Your task to perform on an android device: When is my next appointment? Image 0: 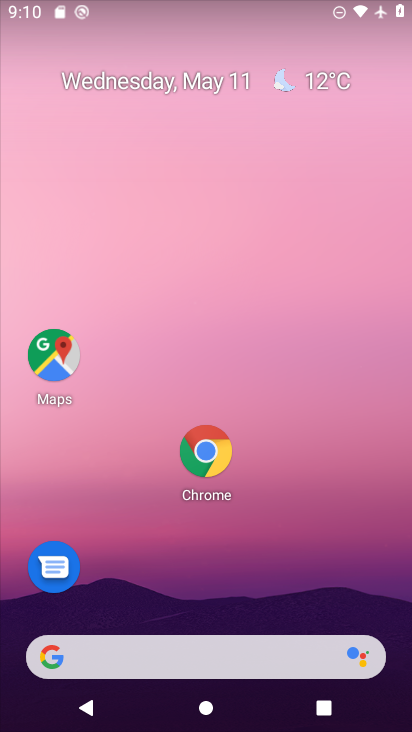
Step 0: press home button
Your task to perform on an android device: When is my next appointment? Image 1: 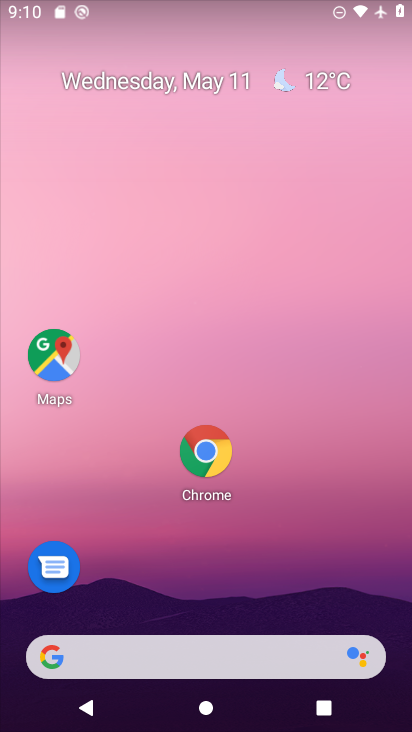
Step 1: drag from (147, 663) to (299, 170)
Your task to perform on an android device: When is my next appointment? Image 2: 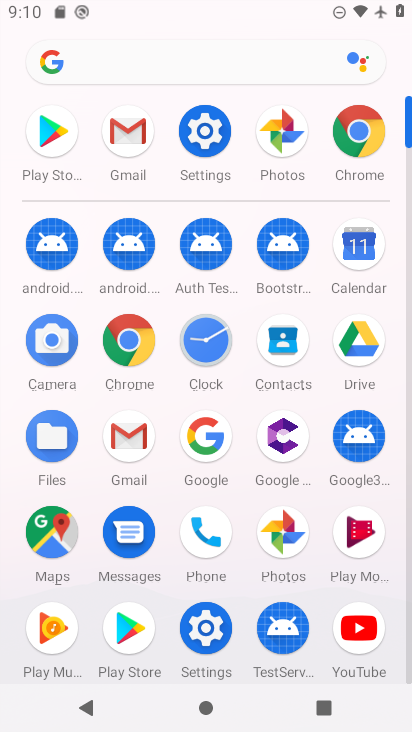
Step 2: click (359, 257)
Your task to perform on an android device: When is my next appointment? Image 3: 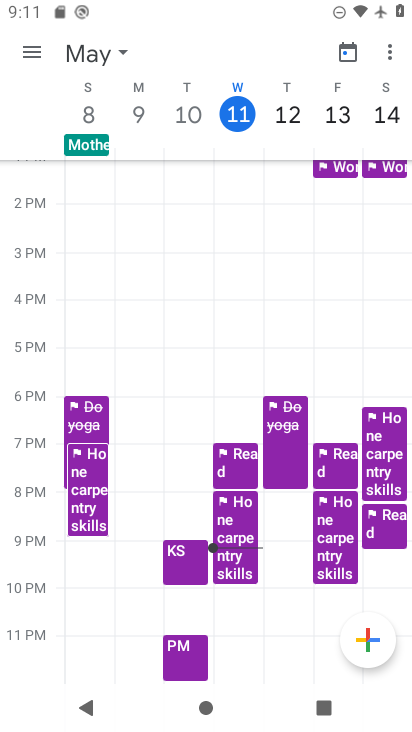
Step 3: click (28, 50)
Your task to perform on an android device: When is my next appointment? Image 4: 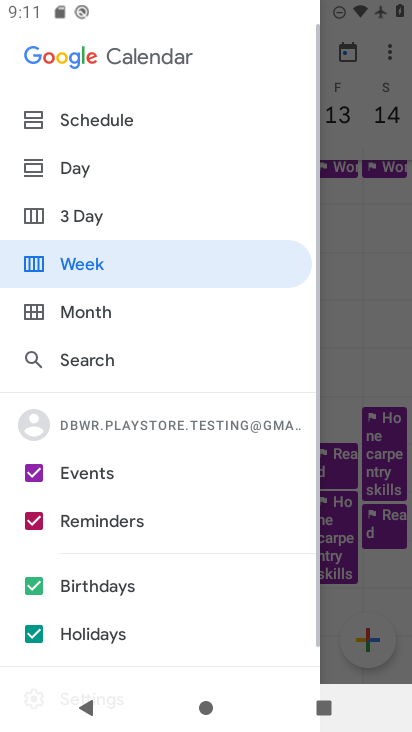
Step 4: click (78, 127)
Your task to perform on an android device: When is my next appointment? Image 5: 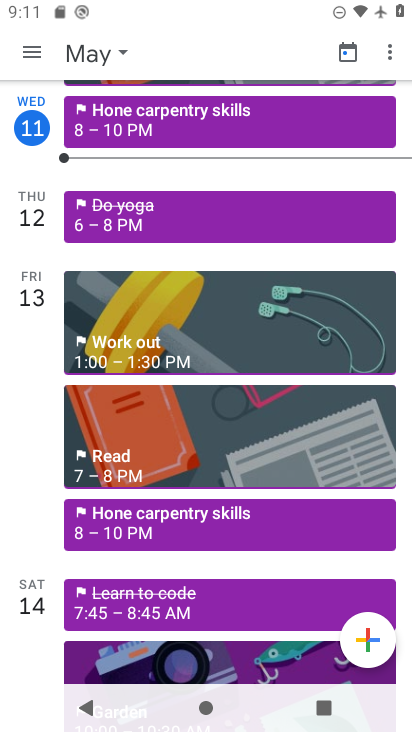
Step 5: task complete